Your task to perform on an android device: Open Google Image 0: 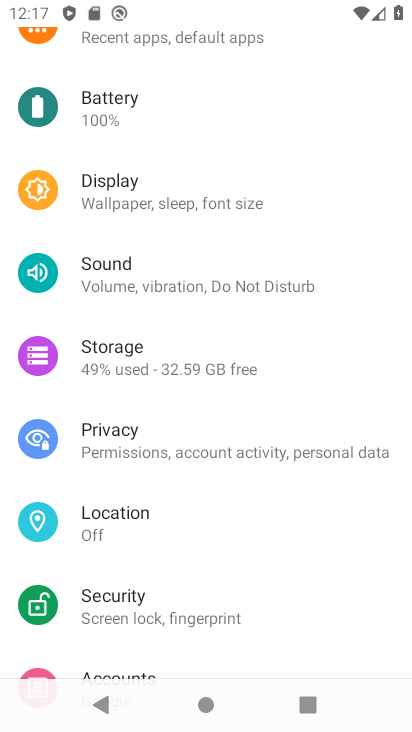
Step 0: press home button
Your task to perform on an android device: Open Google Image 1: 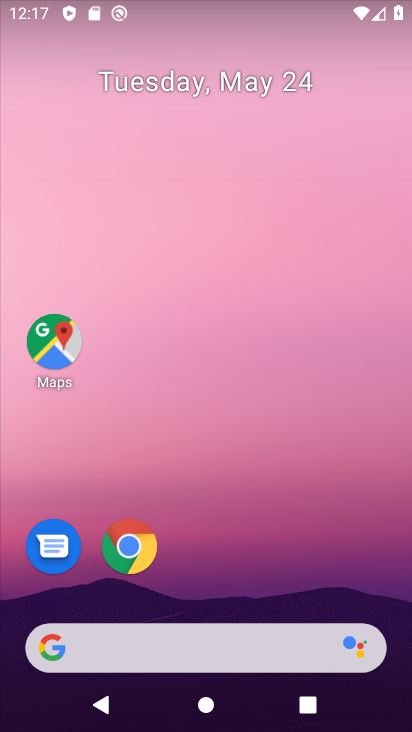
Step 1: drag from (285, 644) to (288, 7)
Your task to perform on an android device: Open Google Image 2: 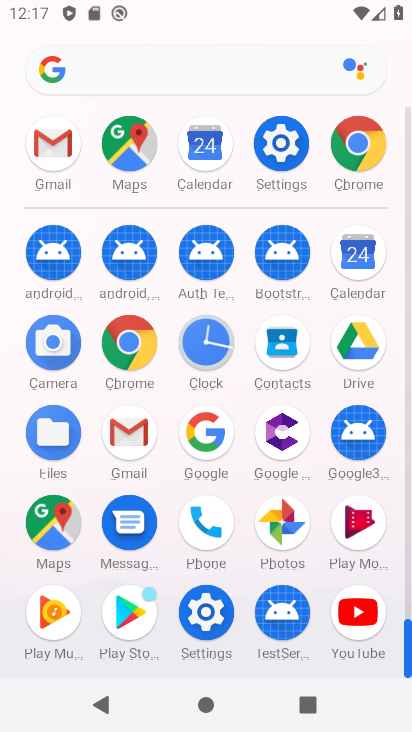
Step 2: click (146, 341)
Your task to perform on an android device: Open Google Image 3: 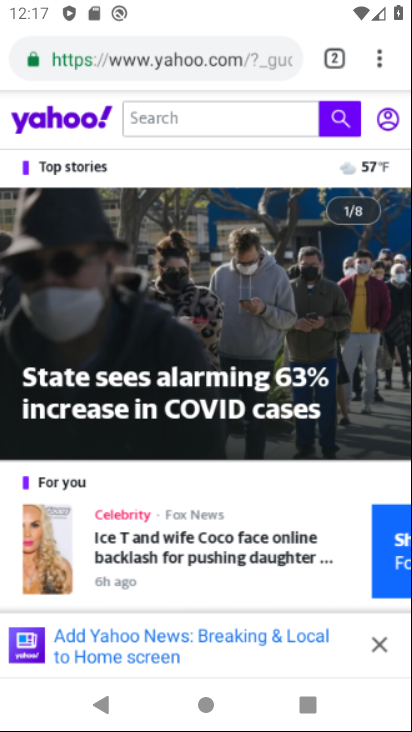
Step 3: click (380, 53)
Your task to perform on an android device: Open Google Image 4: 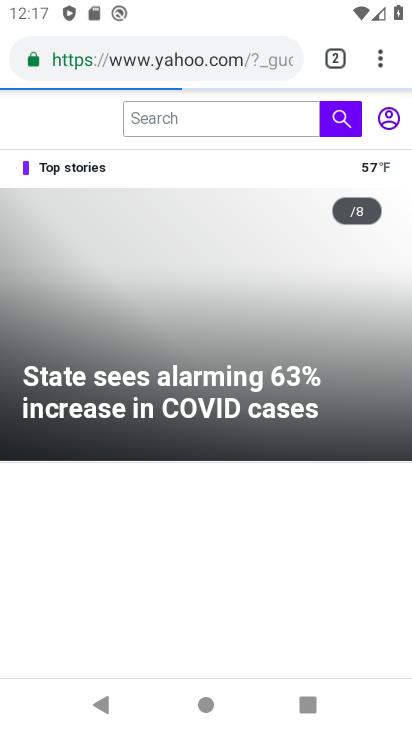
Step 4: task complete